Your task to perform on an android device: turn notification dots on Image 0: 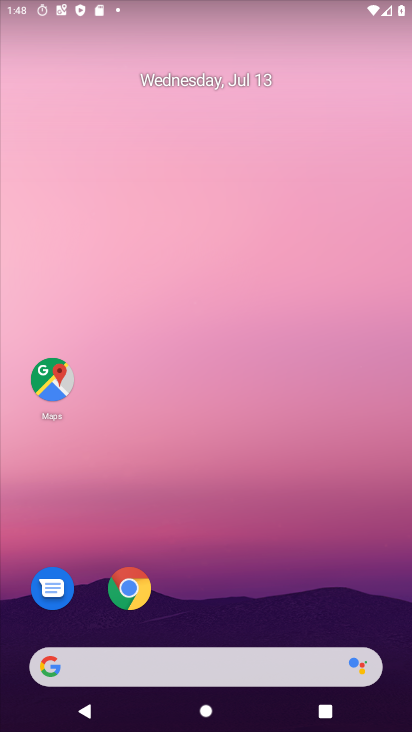
Step 0: drag from (267, 552) to (271, 249)
Your task to perform on an android device: turn notification dots on Image 1: 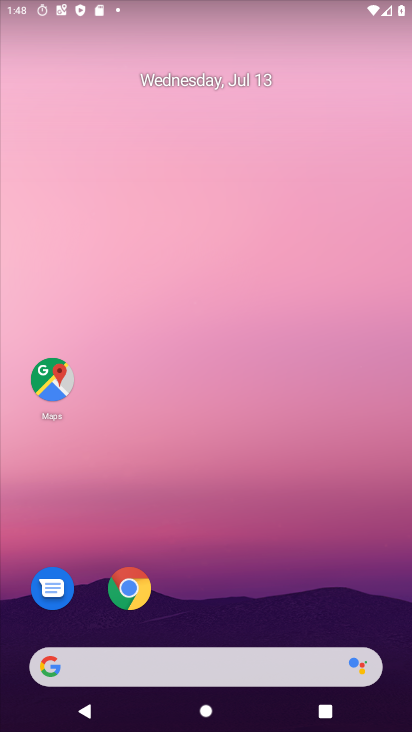
Step 1: drag from (233, 642) to (231, 252)
Your task to perform on an android device: turn notification dots on Image 2: 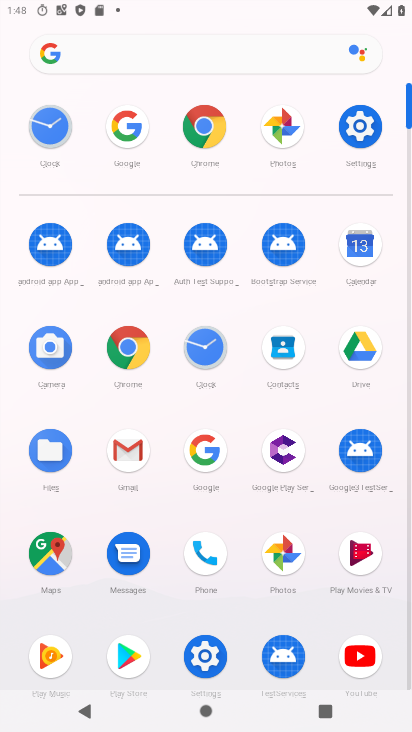
Step 2: click (367, 137)
Your task to perform on an android device: turn notification dots on Image 3: 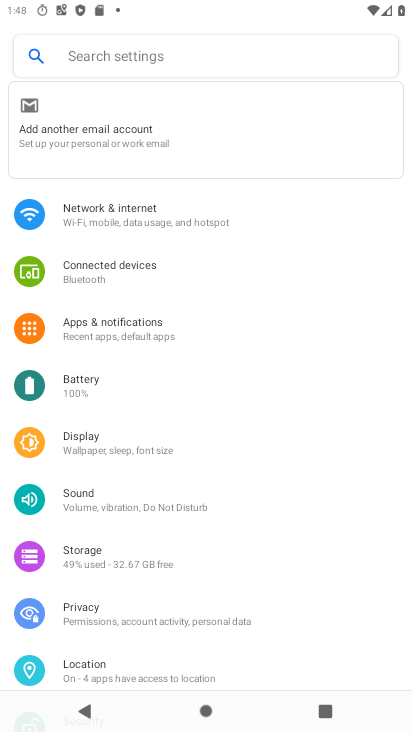
Step 3: click (154, 319)
Your task to perform on an android device: turn notification dots on Image 4: 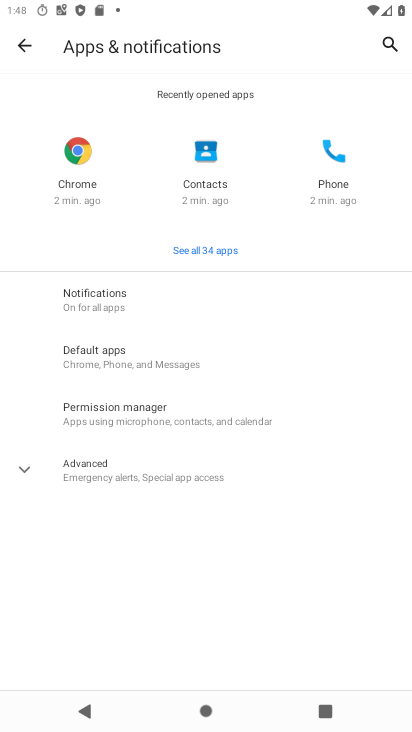
Step 4: click (80, 460)
Your task to perform on an android device: turn notification dots on Image 5: 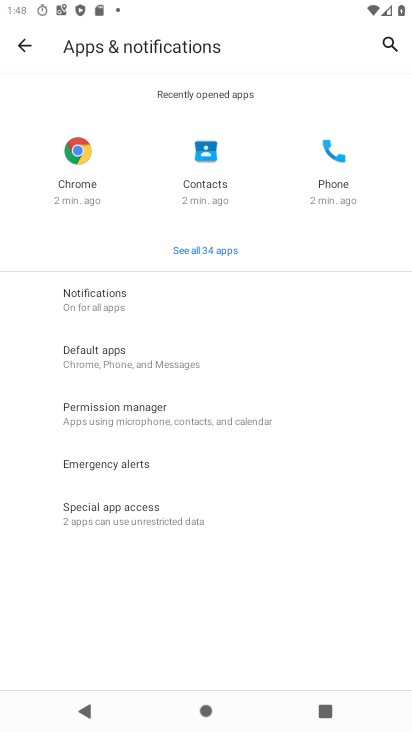
Step 5: click (130, 298)
Your task to perform on an android device: turn notification dots on Image 6: 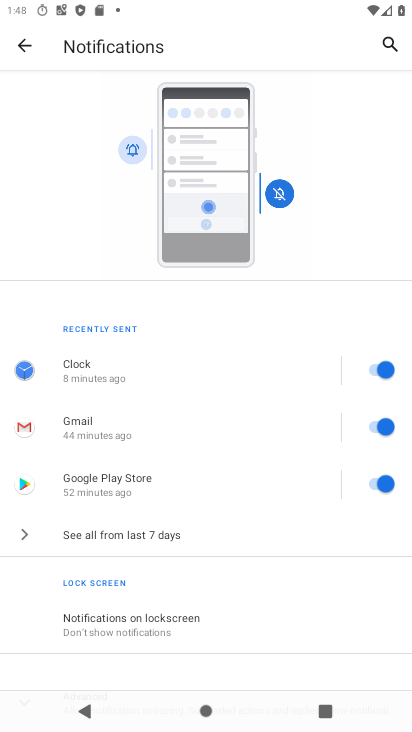
Step 6: drag from (174, 630) to (177, 374)
Your task to perform on an android device: turn notification dots on Image 7: 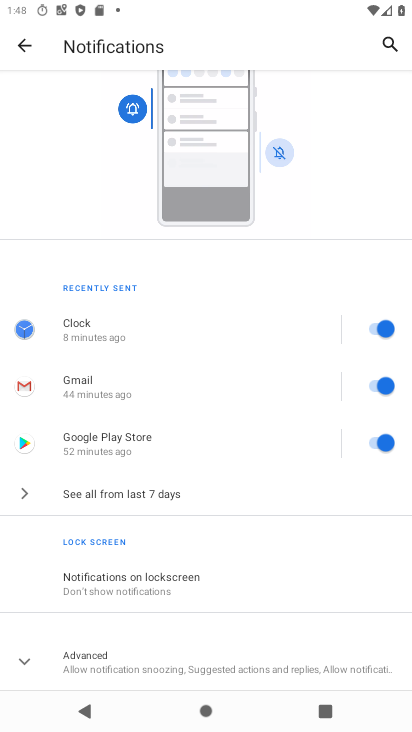
Step 7: click (112, 662)
Your task to perform on an android device: turn notification dots on Image 8: 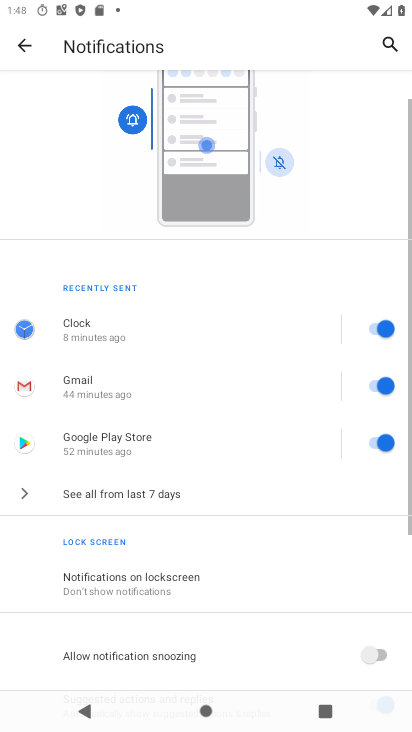
Step 8: drag from (122, 637) to (147, 399)
Your task to perform on an android device: turn notification dots on Image 9: 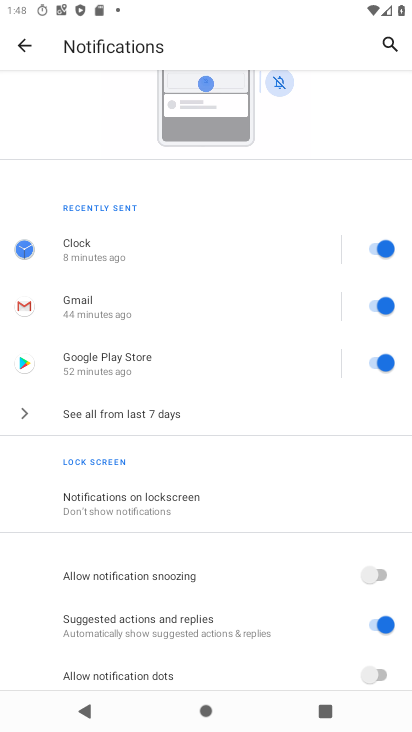
Step 9: drag from (131, 658) to (162, 412)
Your task to perform on an android device: turn notification dots on Image 10: 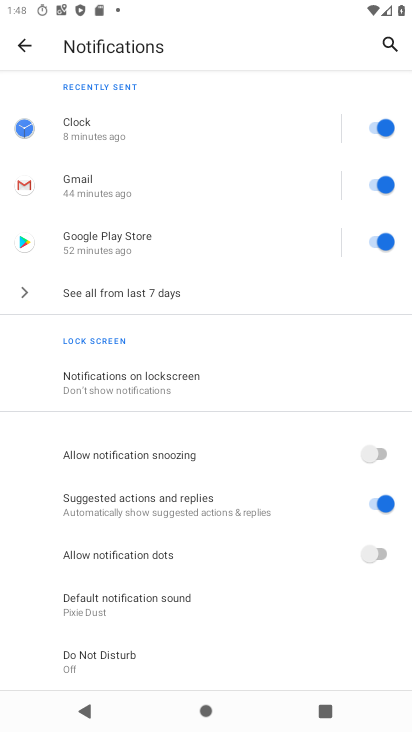
Step 10: click (381, 548)
Your task to perform on an android device: turn notification dots on Image 11: 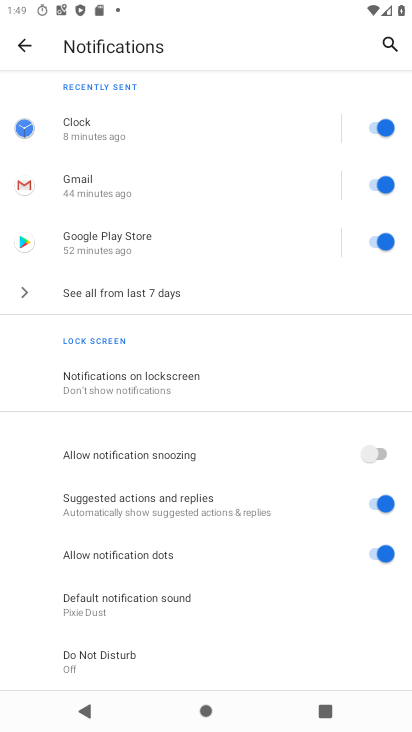
Step 11: task complete